Your task to perform on an android device: open sync settings in chrome Image 0: 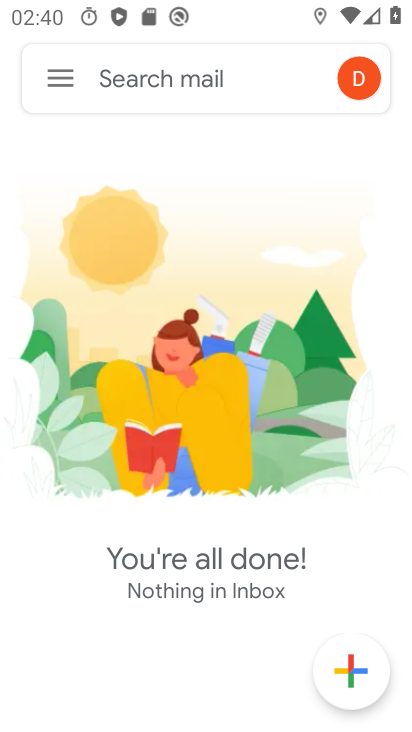
Step 0: press home button
Your task to perform on an android device: open sync settings in chrome Image 1: 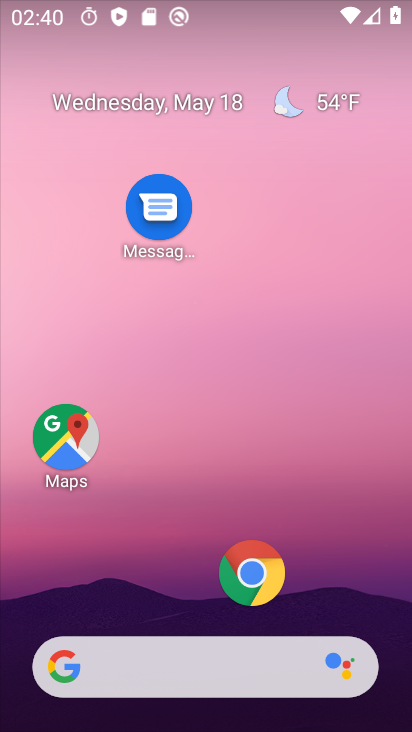
Step 1: click (252, 586)
Your task to perform on an android device: open sync settings in chrome Image 2: 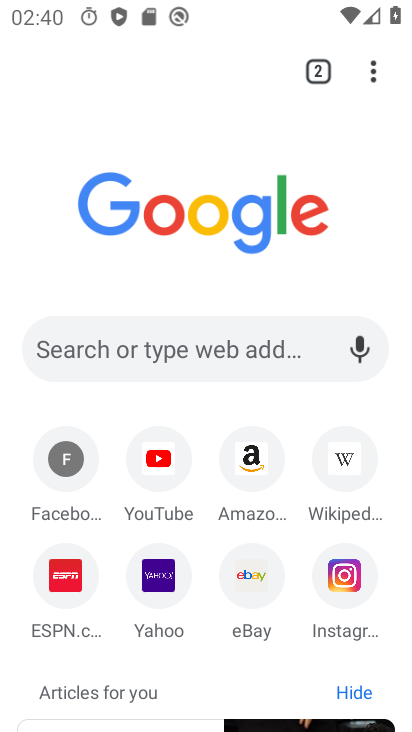
Step 2: click (363, 70)
Your task to perform on an android device: open sync settings in chrome Image 3: 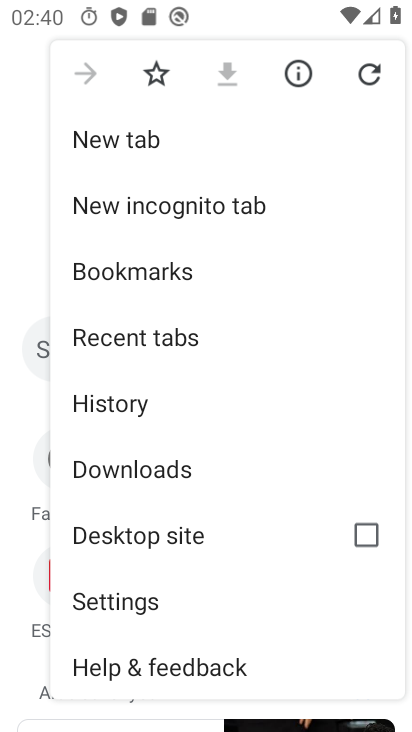
Step 3: drag from (140, 593) to (209, 334)
Your task to perform on an android device: open sync settings in chrome Image 4: 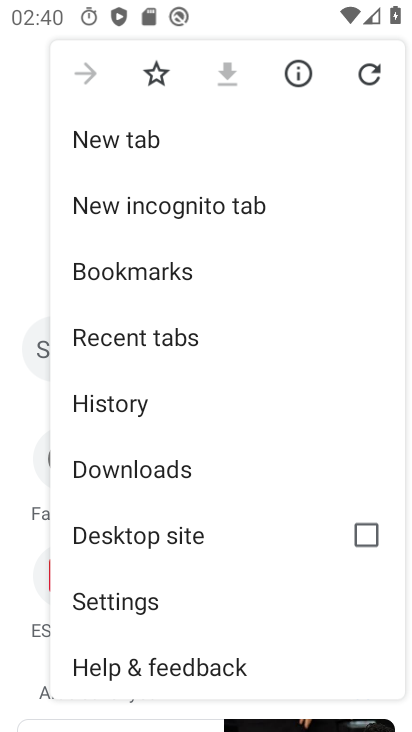
Step 4: click (131, 599)
Your task to perform on an android device: open sync settings in chrome Image 5: 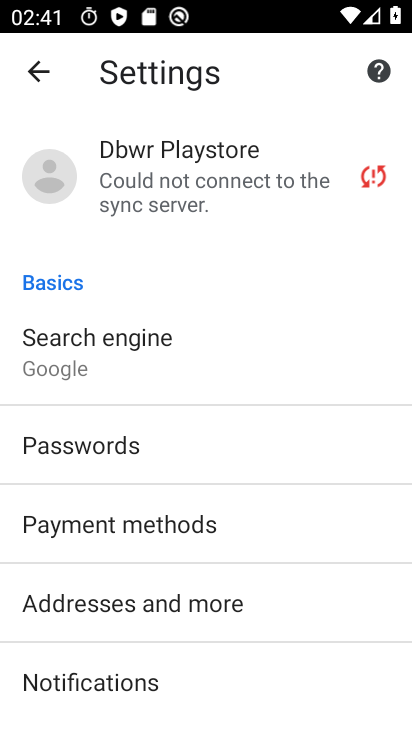
Step 5: click (182, 195)
Your task to perform on an android device: open sync settings in chrome Image 6: 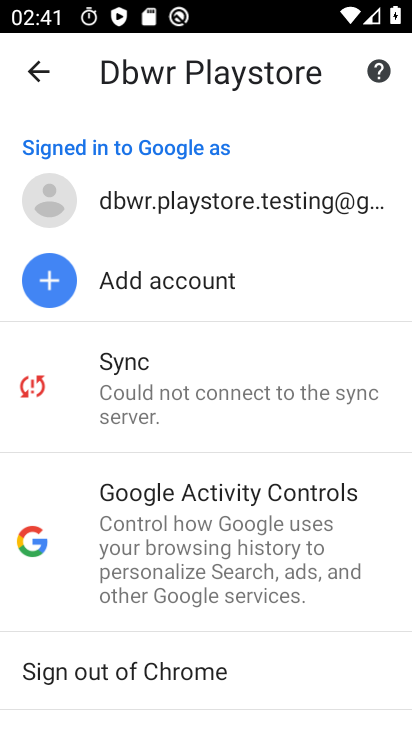
Step 6: click (128, 347)
Your task to perform on an android device: open sync settings in chrome Image 7: 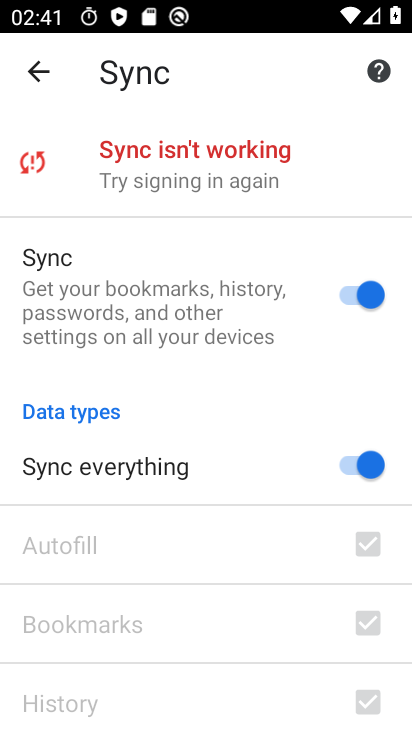
Step 7: task complete